Your task to perform on an android device: Open settings on Google Maps Image 0: 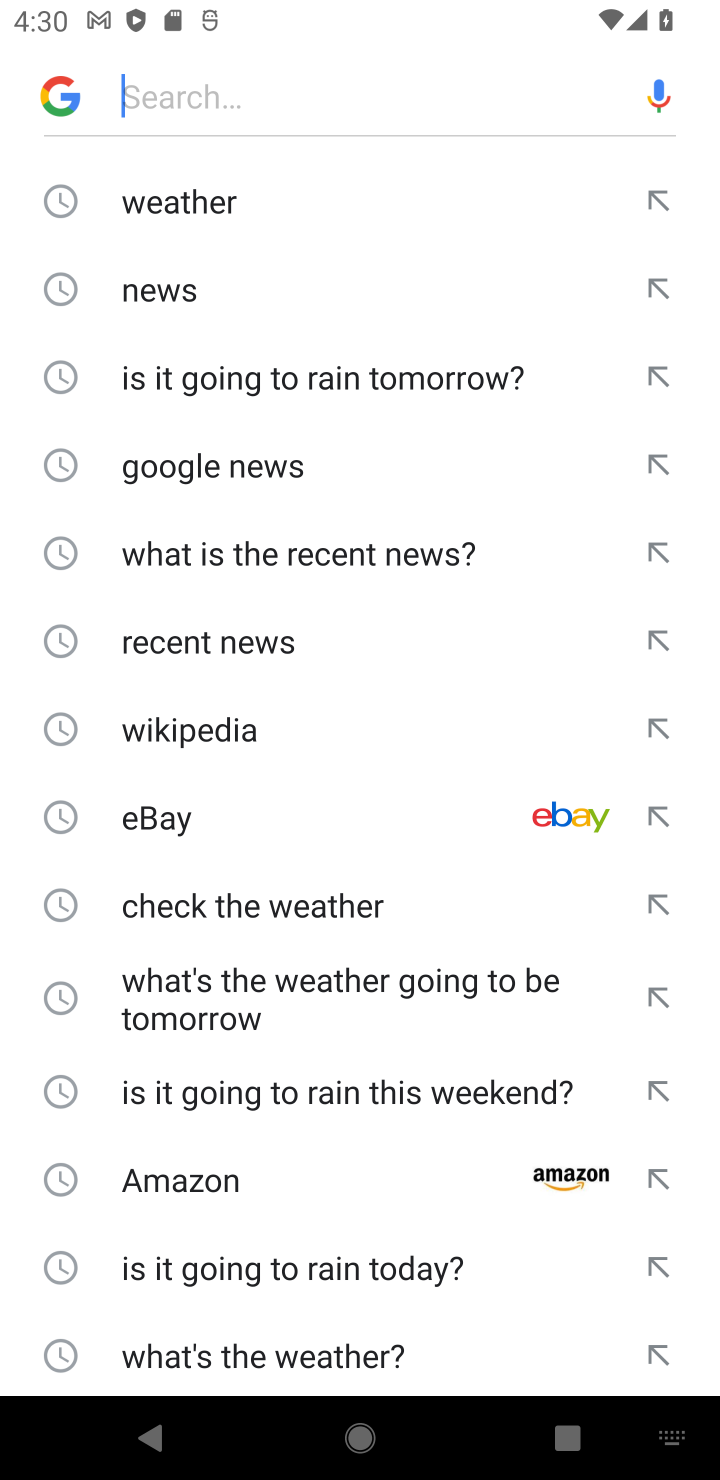
Step 0: press home button
Your task to perform on an android device: Open settings on Google Maps Image 1: 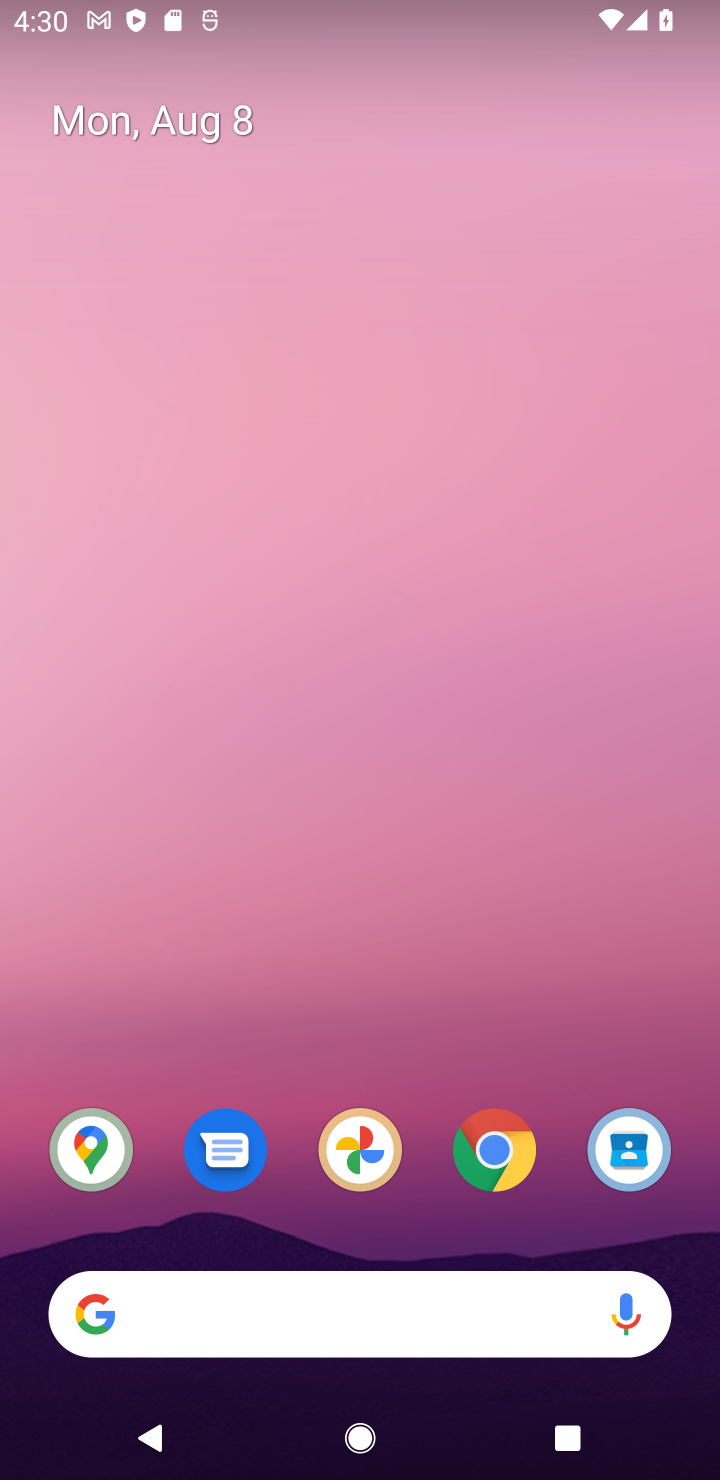
Step 1: click (99, 1188)
Your task to perform on an android device: Open settings on Google Maps Image 2: 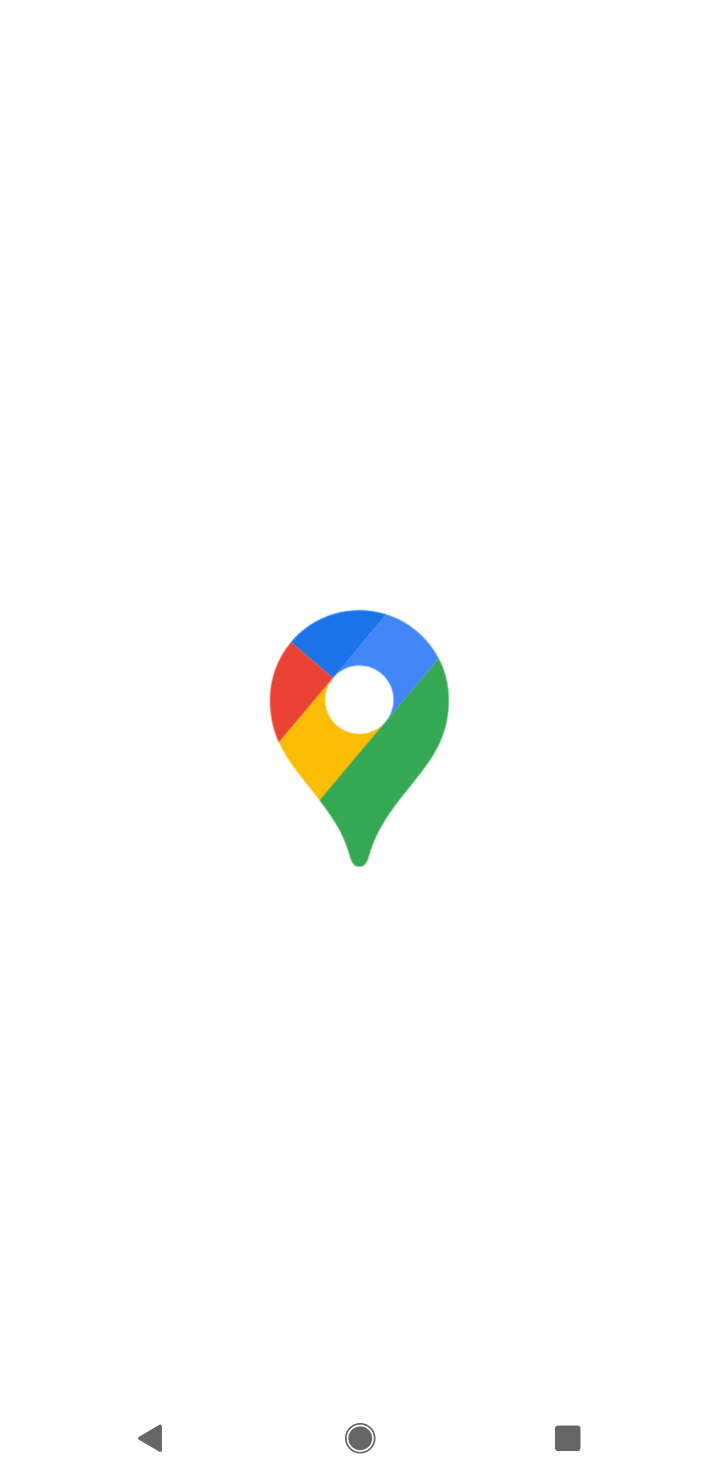
Step 2: task complete